Your task to perform on an android device: turn off improve location accuracy Image 0: 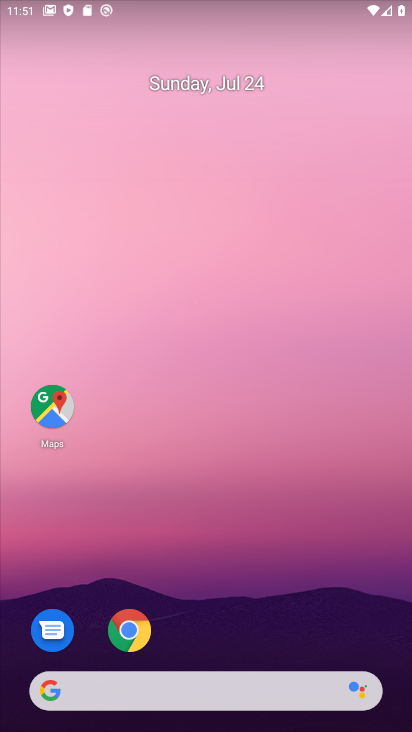
Step 0: press home button
Your task to perform on an android device: turn off improve location accuracy Image 1: 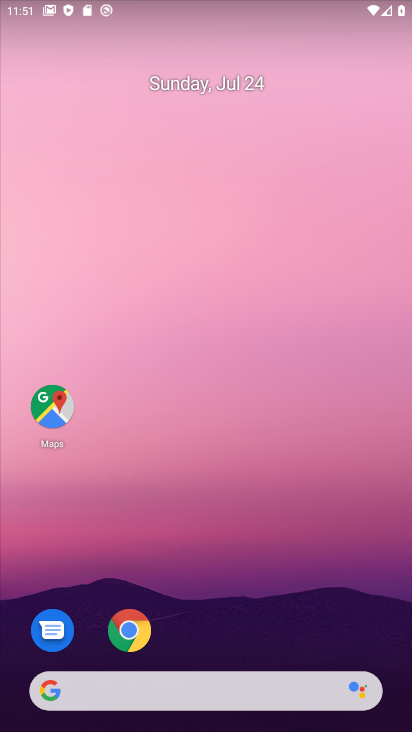
Step 1: drag from (299, 598) to (258, 37)
Your task to perform on an android device: turn off improve location accuracy Image 2: 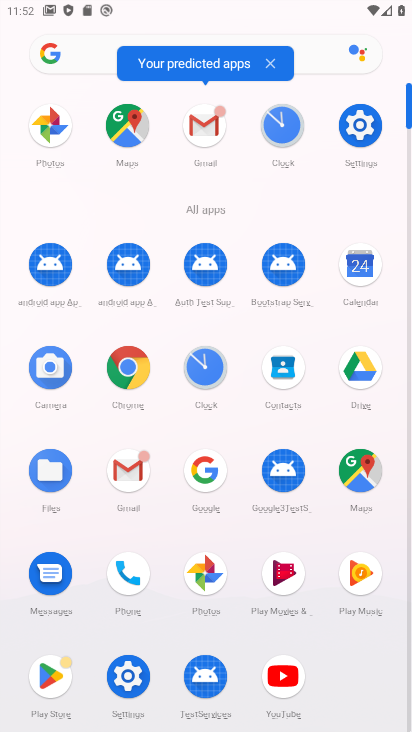
Step 2: click (354, 126)
Your task to perform on an android device: turn off improve location accuracy Image 3: 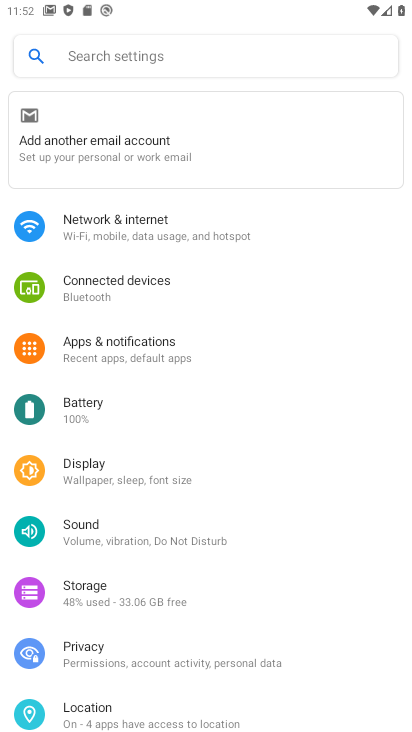
Step 3: click (84, 717)
Your task to perform on an android device: turn off improve location accuracy Image 4: 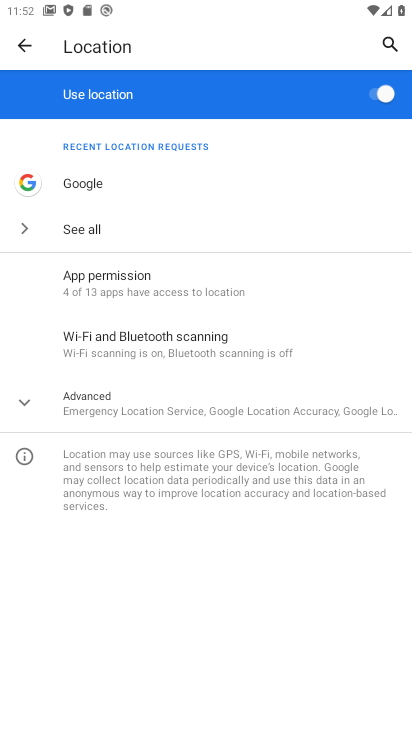
Step 4: click (25, 398)
Your task to perform on an android device: turn off improve location accuracy Image 5: 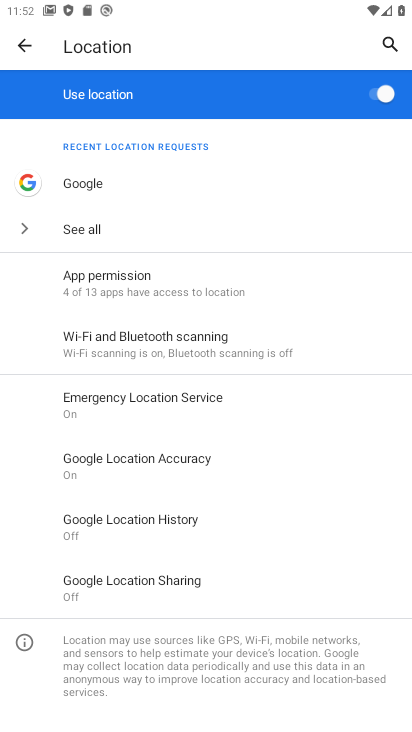
Step 5: click (150, 460)
Your task to perform on an android device: turn off improve location accuracy Image 6: 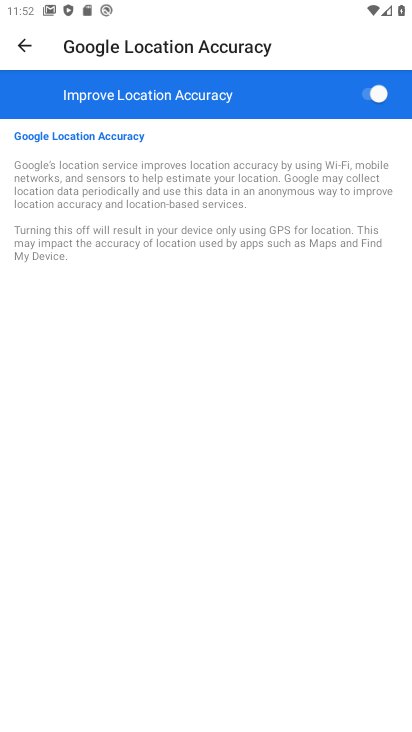
Step 6: click (372, 93)
Your task to perform on an android device: turn off improve location accuracy Image 7: 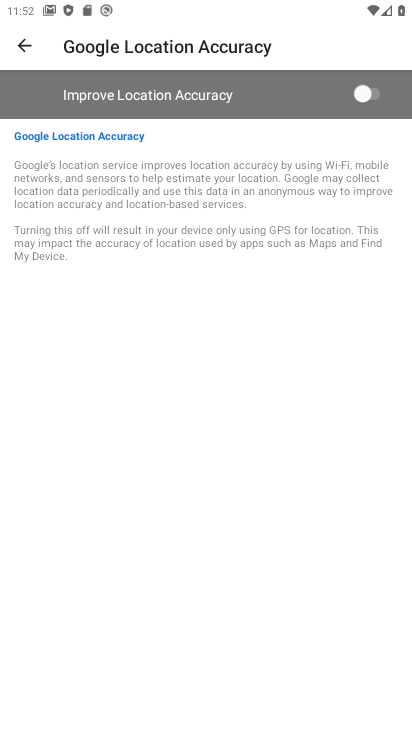
Step 7: task complete